Your task to perform on an android device: turn off sleep mode Image 0: 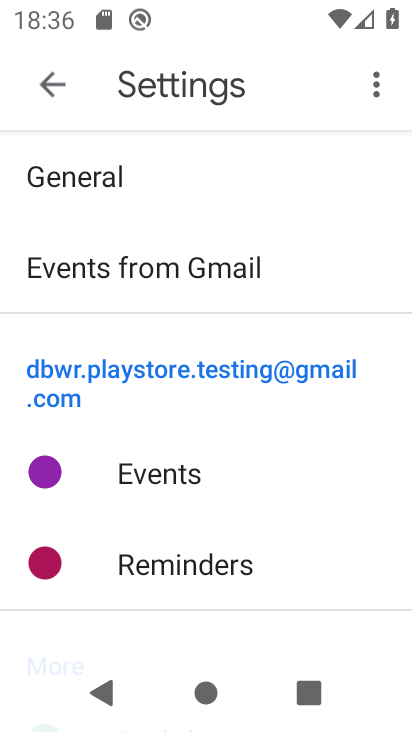
Step 0: press home button
Your task to perform on an android device: turn off sleep mode Image 1: 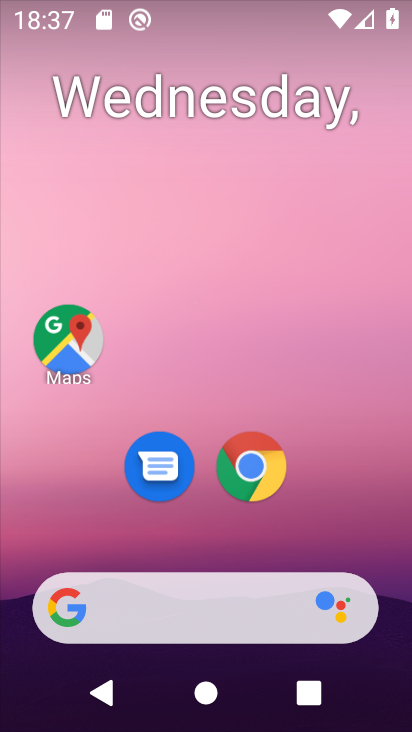
Step 1: drag from (335, 464) to (251, 20)
Your task to perform on an android device: turn off sleep mode Image 2: 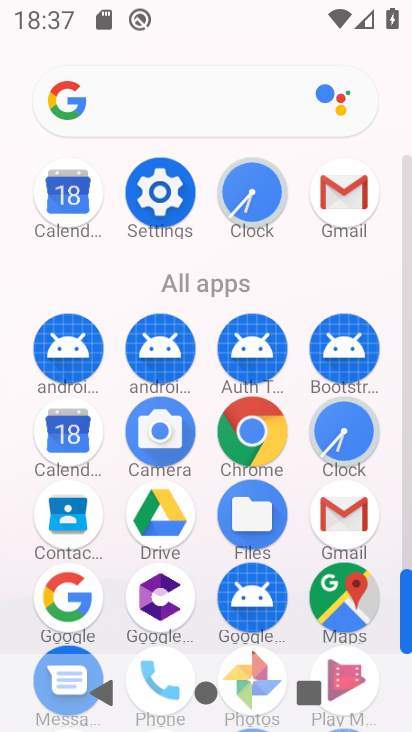
Step 2: click (159, 194)
Your task to perform on an android device: turn off sleep mode Image 3: 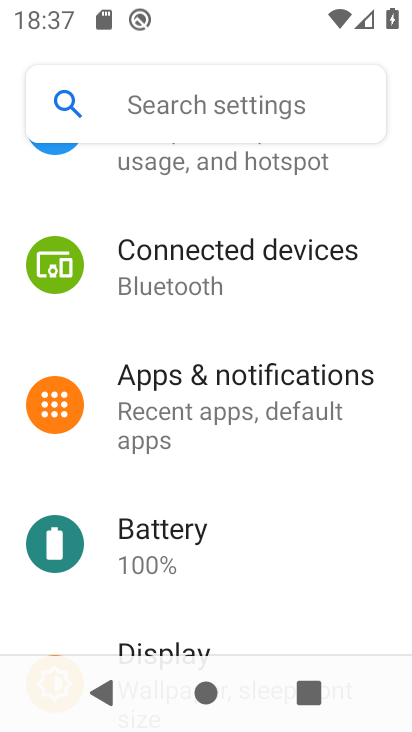
Step 3: drag from (251, 490) to (215, 277)
Your task to perform on an android device: turn off sleep mode Image 4: 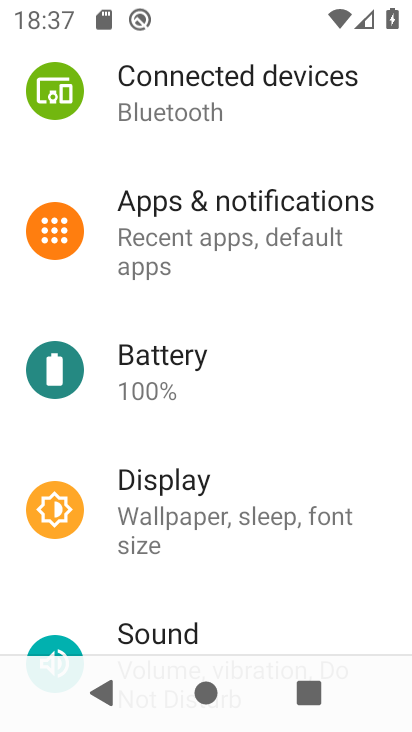
Step 4: click (174, 497)
Your task to perform on an android device: turn off sleep mode Image 5: 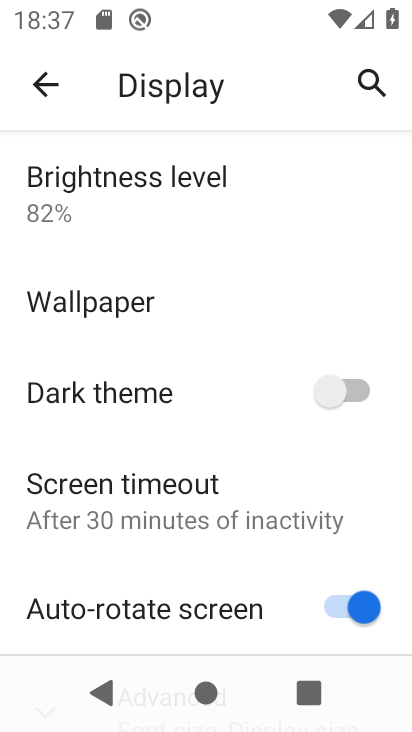
Step 5: task complete